Your task to perform on an android device: turn notification dots off Image 0: 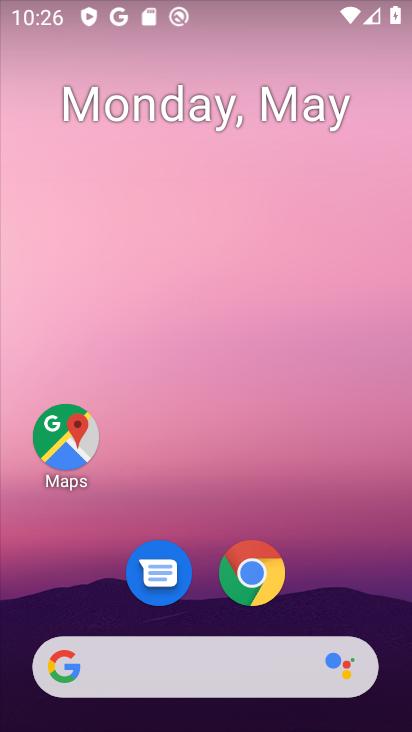
Step 0: drag from (188, 601) to (212, 61)
Your task to perform on an android device: turn notification dots off Image 1: 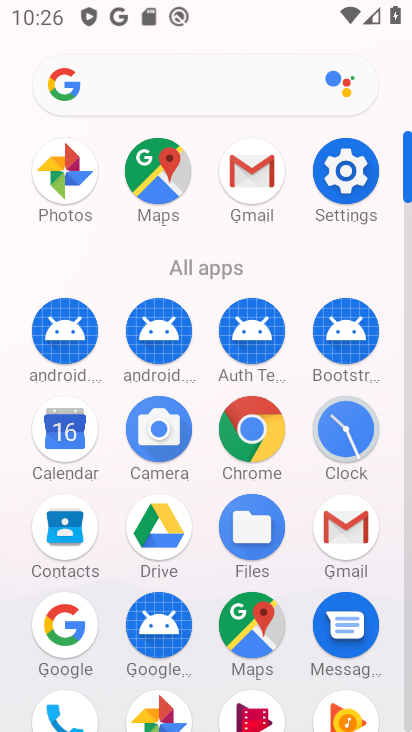
Step 1: click (336, 172)
Your task to perform on an android device: turn notification dots off Image 2: 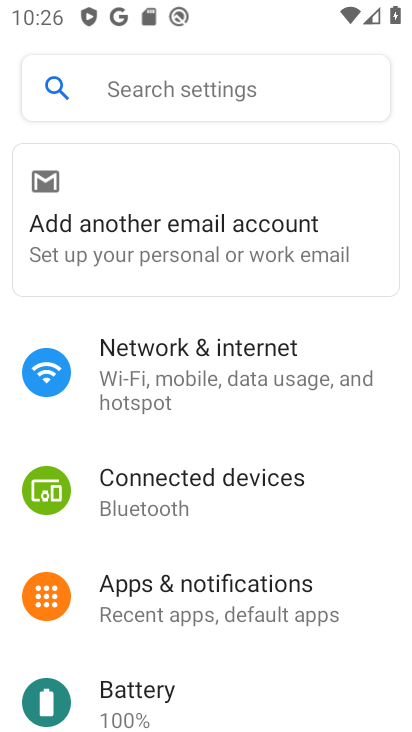
Step 2: click (237, 598)
Your task to perform on an android device: turn notification dots off Image 3: 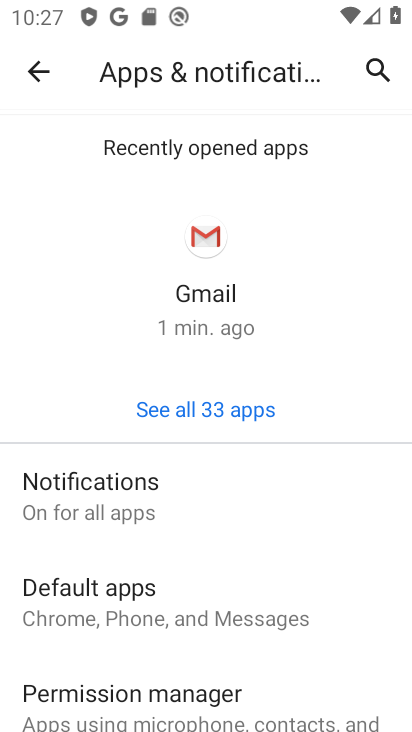
Step 3: drag from (223, 639) to (290, 146)
Your task to perform on an android device: turn notification dots off Image 4: 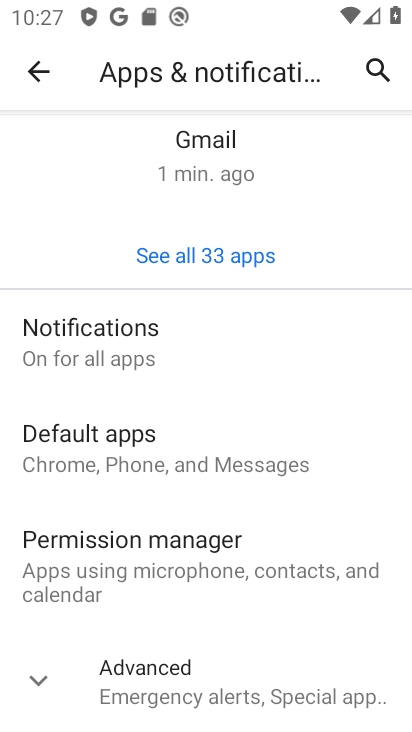
Step 4: click (134, 353)
Your task to perform on an android device: turn notification dots off Image 5: 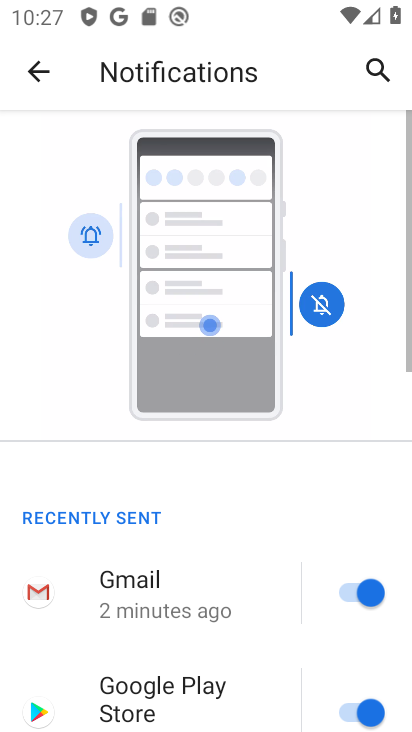
Step 5: drag from (209, 694) to (295, 131)
Your task to perform on an android device: turn notification dots off Image 6: 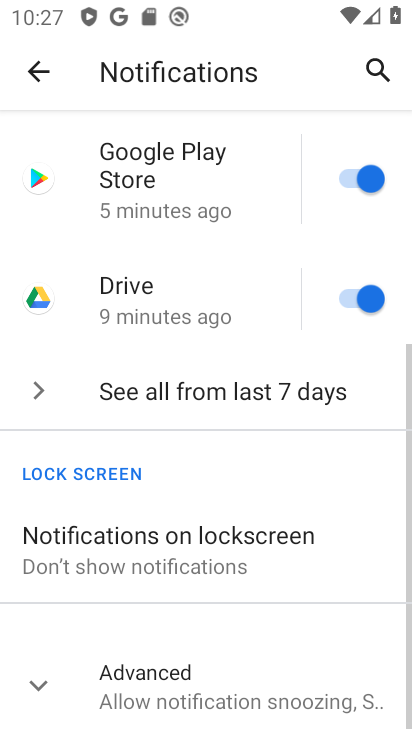
Step 6: drag from (178, 615) to (234, 187)
Your task to perform on an android device: turn notification dots off Image 7: 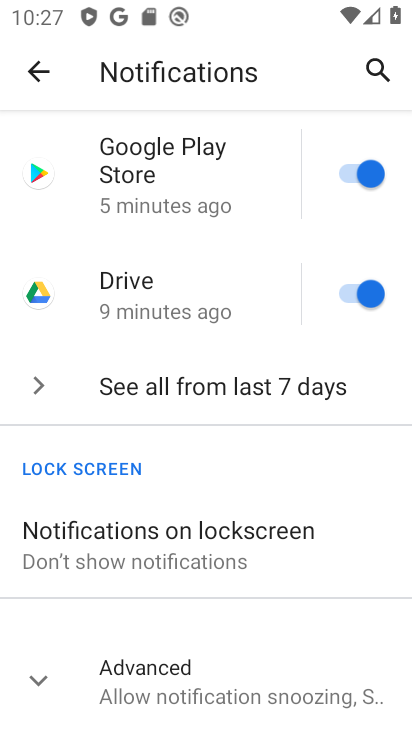
Step 7: click (151, 673)
Your task to perform on an android device: turn notification dots off Image 8: 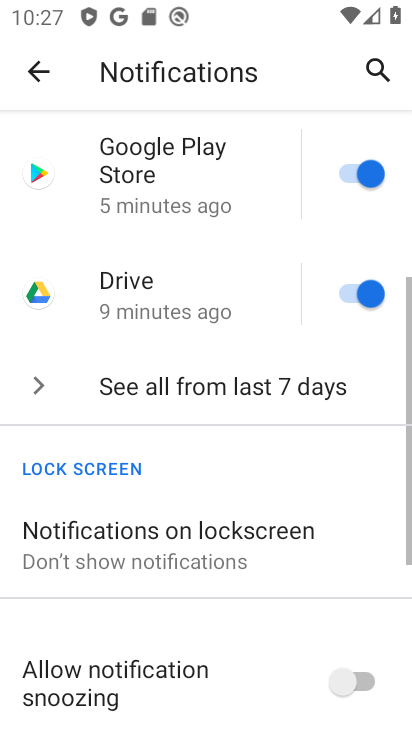
Step 8: drag from (192, 639) to (232, 157)
Your task to perform on an android device: turn notification dots off Image 9: 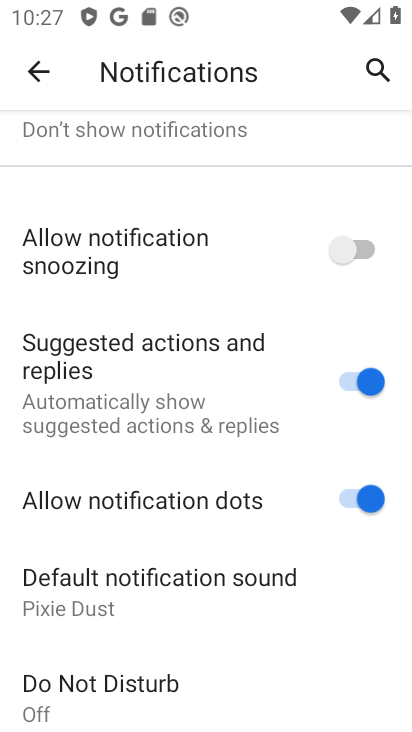
Step 9: click (369, 503)
Your task to perform on an android device: turn notification dots off Image 10: 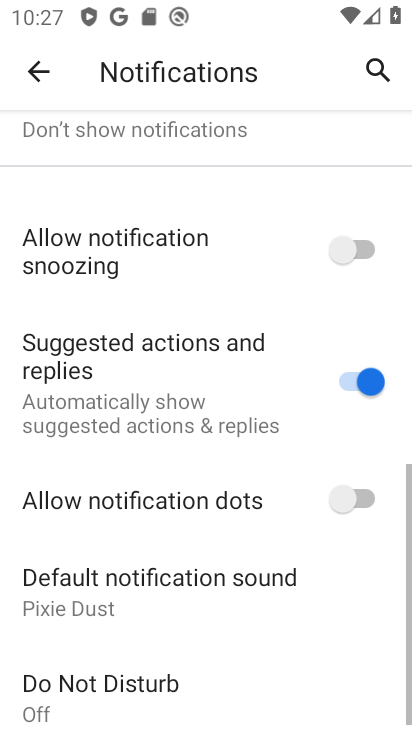
Step 10: task complete